Your task to perform on an android device: turn notification dots off Image 0: 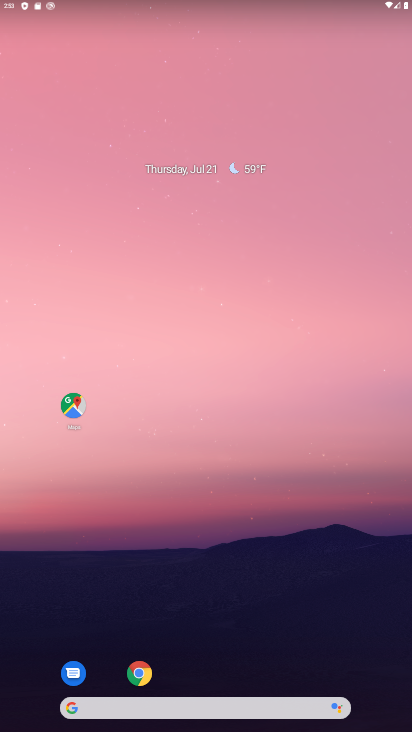
Step 0: drag from (377, 659) to (323, 133)
Your task to perform on an android device: turn notification dots off Image 1: 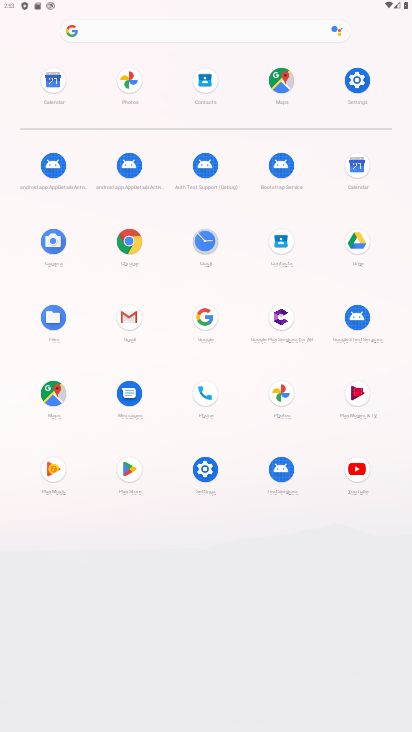
Step 1: click (204, 471)
Your task to perform on an android device: turn notification dots off Image 2: 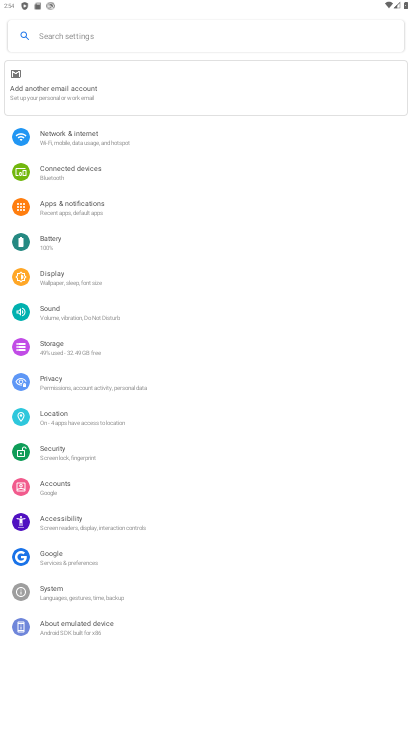
Step 2: click (56, 209)
Your task to perform on an android device: turn notification dots off Image 3: 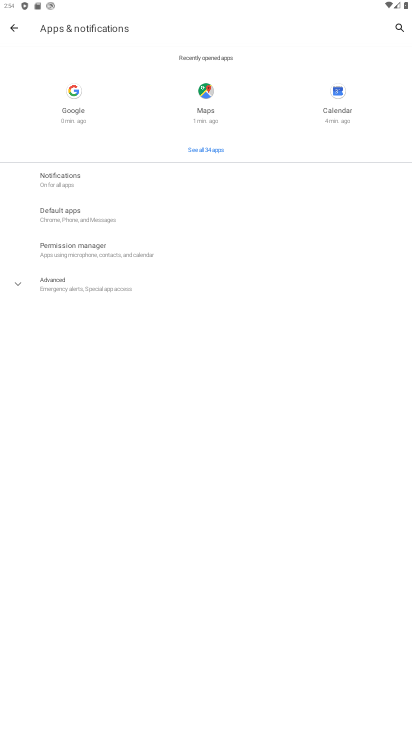
Step 3: click (56, 178)
Your task to perform on an android device: turn notification dots off Image 4: 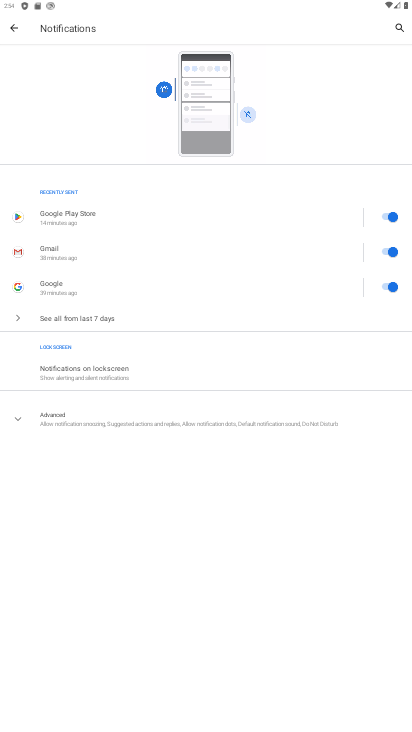
Step 4: click (11, 417)
Your task to perform on an android device: turn notification dots off Image 5: 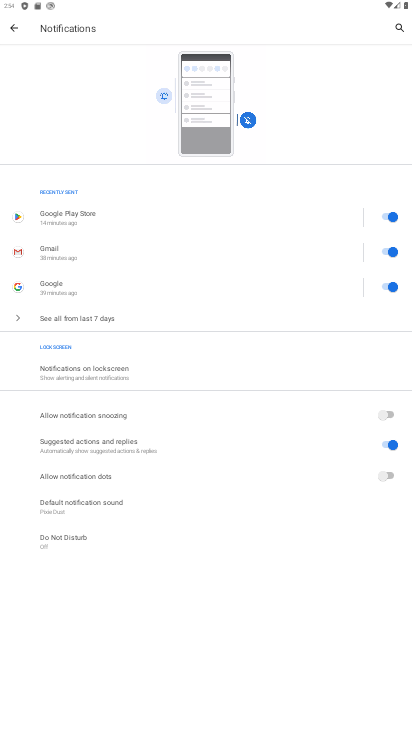
Step 5: task complete